Your task to perform on an android device: open chrome and create a bookmark for the current page Image 0: 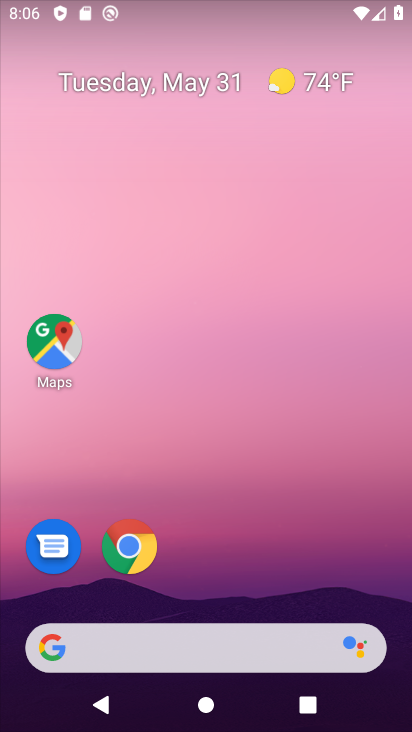
Step 0: click (134, 553)
Your task to perform on an android device: open chrome and create a bookmark for the current page Image 1: 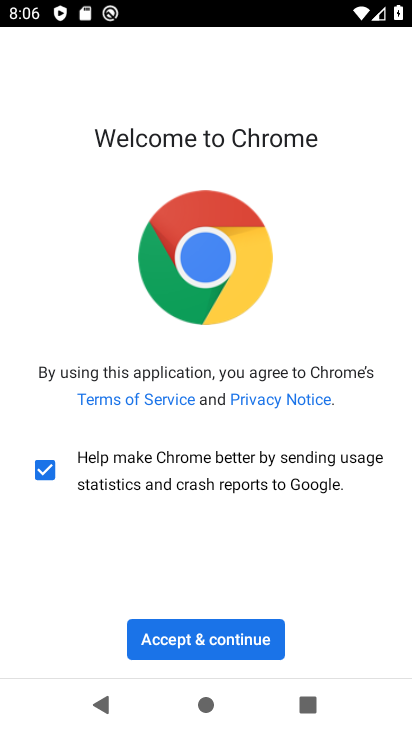
Step 1: click (191, 645)
Your task to perform on an android device: open chrome and create a bookmark for the current page Image 2: 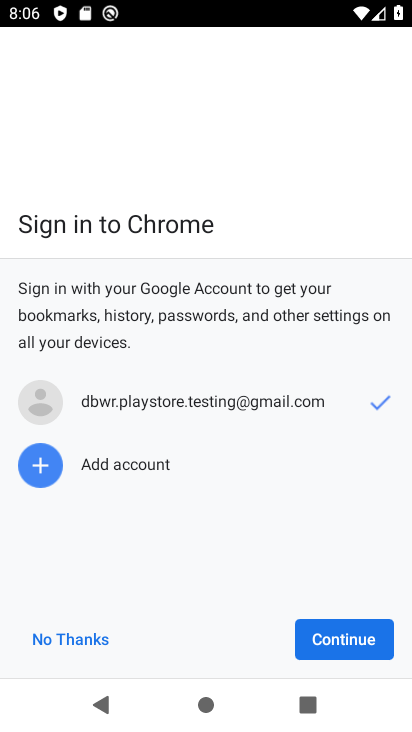
Step 2: click (349, 631)
Your task to perform on an android device: open chrome and create a bookmark for the current page Image 3: 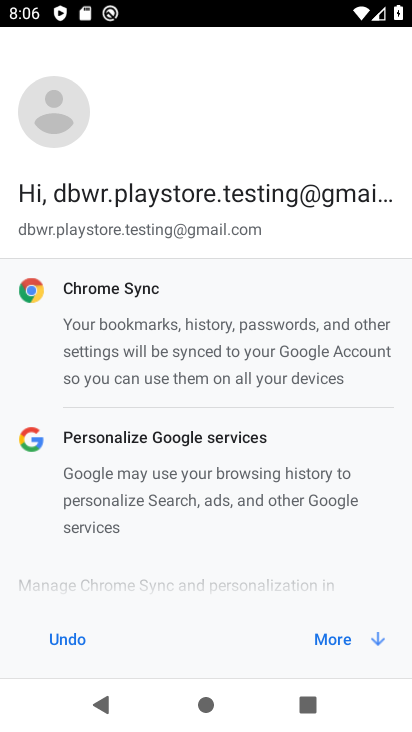
Step 3: click (326, 626)
Your task to perform on an android device: open chrome and create a bookmark for the current page Image 4: 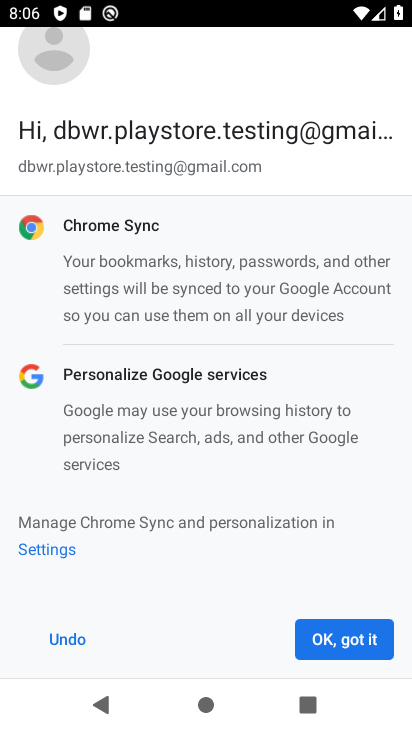
Step 4: click (318, 644)
Your task to perform on an android device: open chrome and create a bookmark for the current page Image 5: 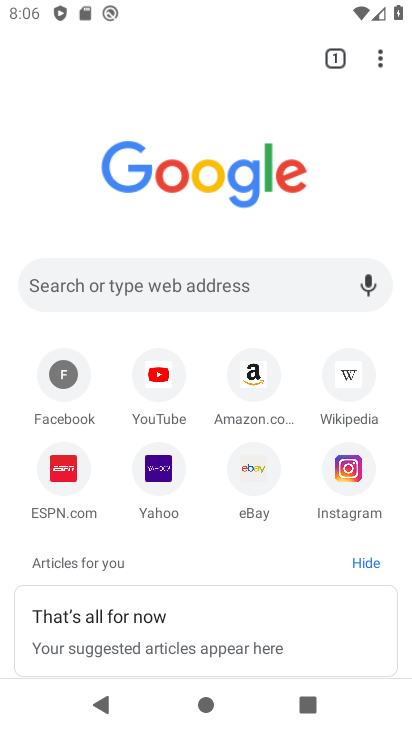
Step 5: click (377, 57)
Your task to perform on an android device: open chrome and create a bookmark for the current page Image 6: 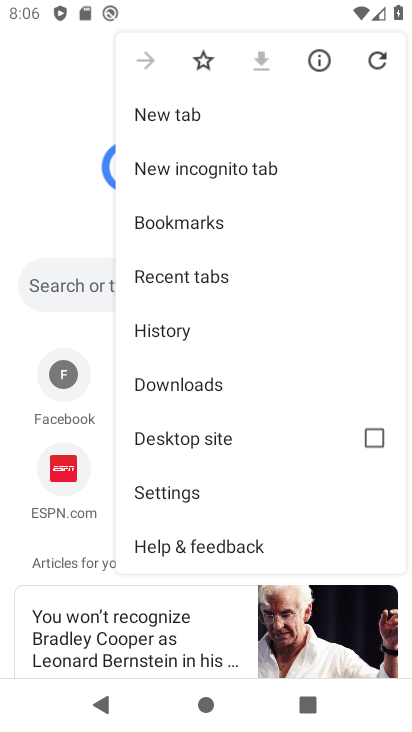
Step 6: click (201, 61)
Your task to perform on an android device: open chrome and create a bookmark for the current page Image 7: 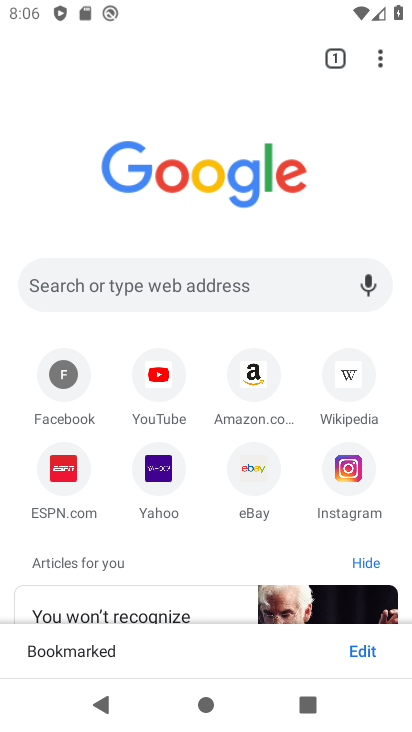
Step 7: task complete